Your task to perform on an android device: Search for vegetarian restaurants on Maps Image 0: 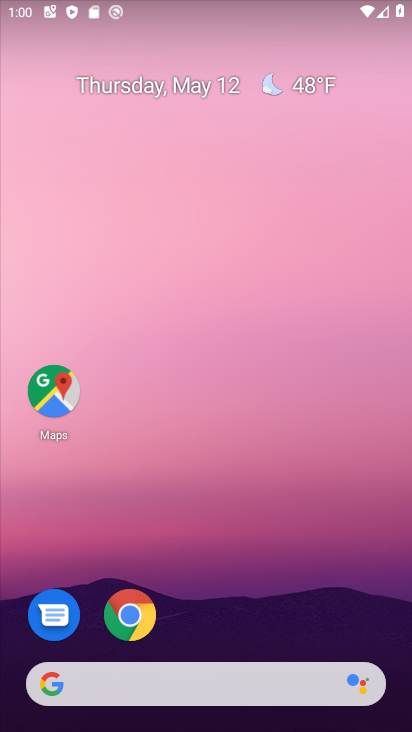
Step 0: drag from (232, 646) to (231, 0)
Your task to perform on an android device: Search for vegetarian restaurants on Maps Image 1: 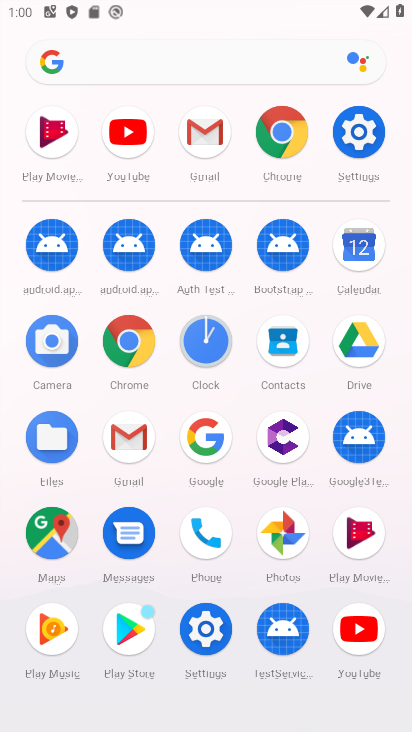
Step 1: click (61, 526)
Your task to perform on an android device: Search for vegetarian restaurants on Maps Image 2: 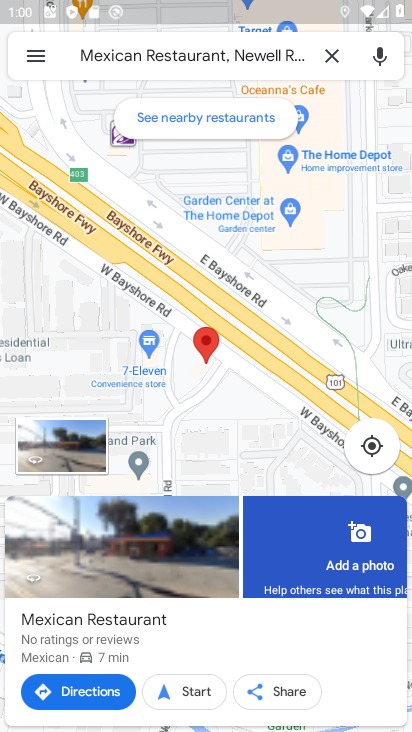
Step 2: task complete